Your task to perform on an android device: Go to settings Image 0: 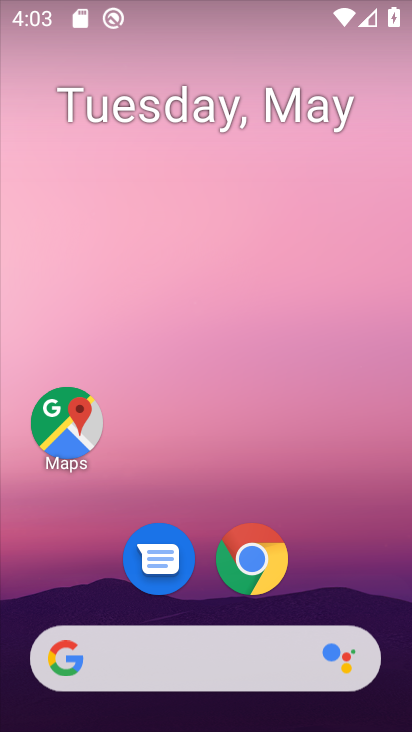
Step 0: drag from (325, 568) to (383, 341)
Your task to perform on an android device: Go to settings Image 1: 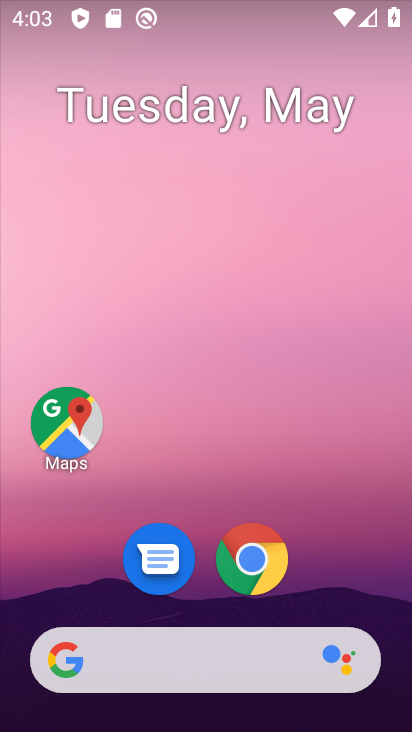
Step 1: drag from (331, 589) to (298, 70)
Your task to perform on an android device: Go to settings Image 2: 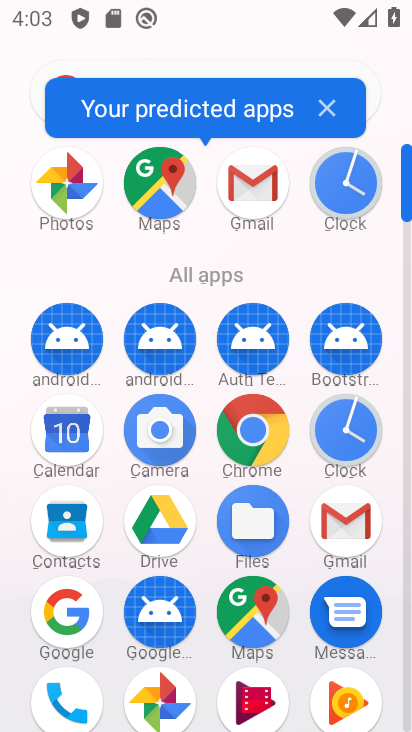
Step 2: drag from (213, 302) to (216, 92)
Your task to perform on an android device: Go to settings Image 3: 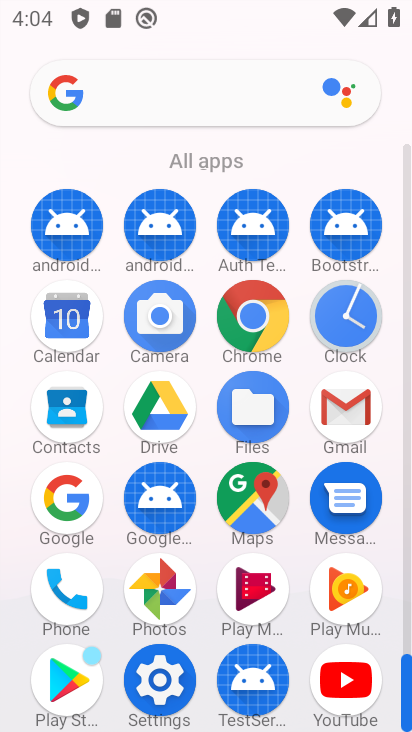
Step 3: click (162, 670)
Your task to perform on an android device: Go to settings Image 4: 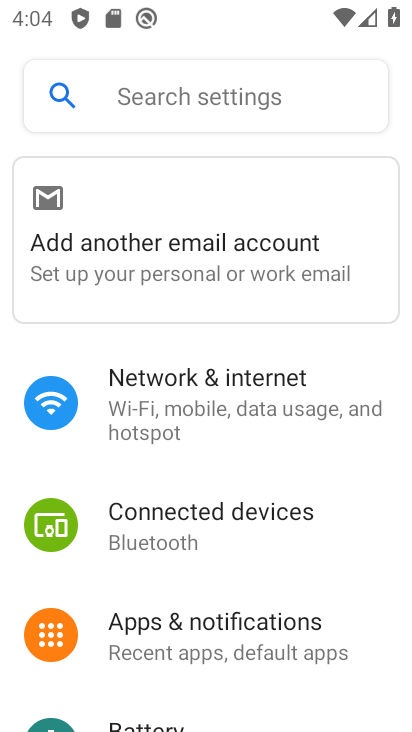
Step 4: task complete